Your task to perform on an android device: change text size in settings app Image 0: 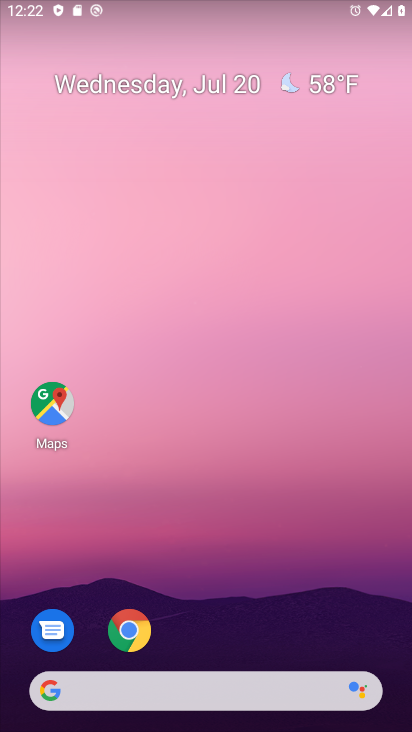
Step 0: drag from (178, 660) to (285, 58)
Your task to perform on an android device: change text size in settings app Image 1: 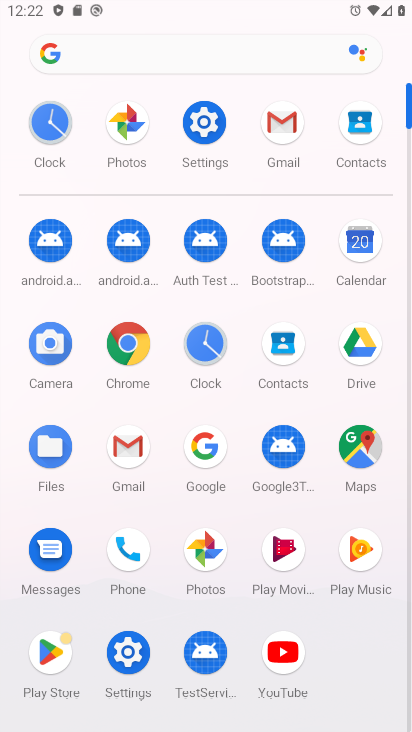
Step 1: click (188, 124)
Your task to perform on an android device: change text size in settings app Image 2: 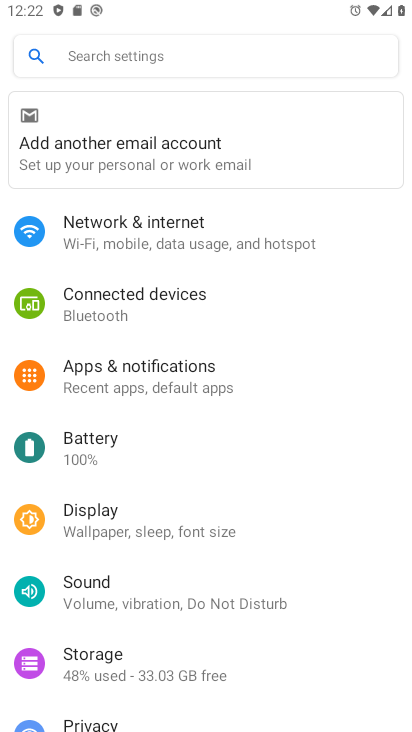
Step 2: click (144, 523)
Your task to perform on an android device: change text size in settings app Image 3: 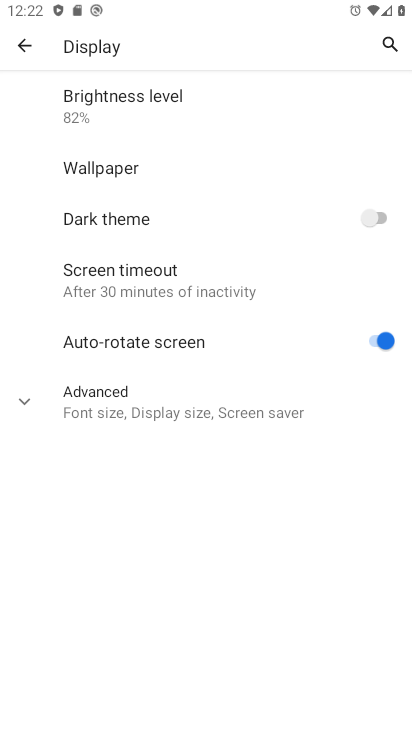
Step 3: click (99, 400)
Your task to perform on an android device: change text size in settings app Image 4: 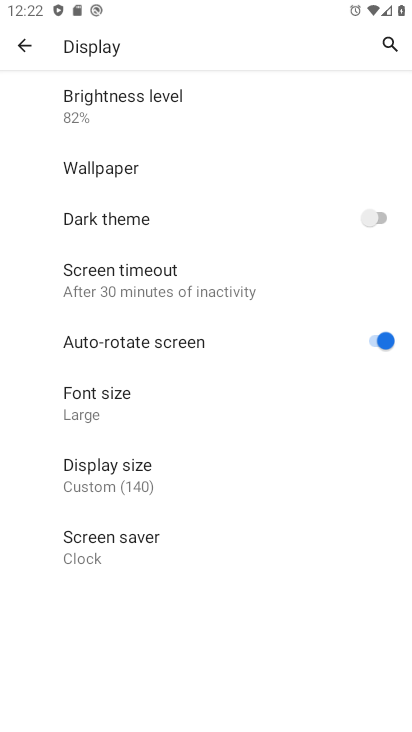
Step 4: click (94, 401)
Your task to perform on an android device: change text size in settings app Image 5: 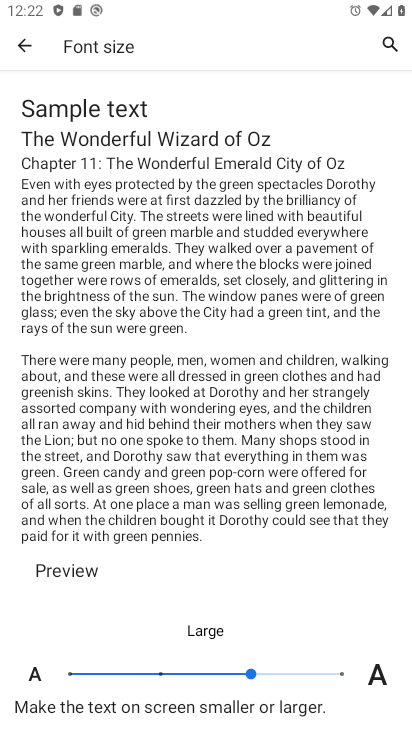
Step 5: click (340, 673)
Your task to perform on an android device: change text size in settings app Image 6: 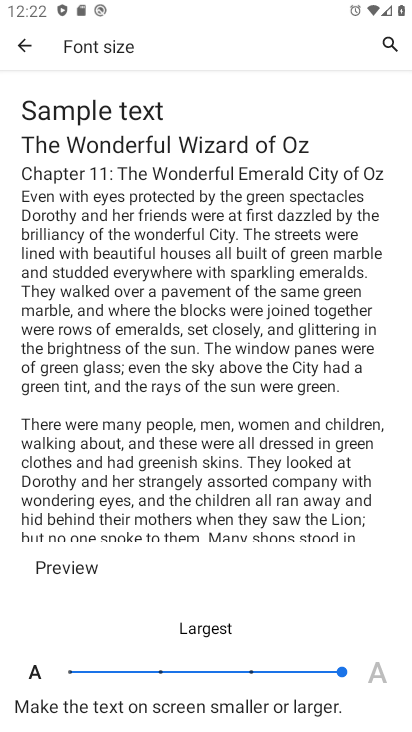
Step 6: task complete